Your task to perform on an android device: toggle sleep mode Image 0: 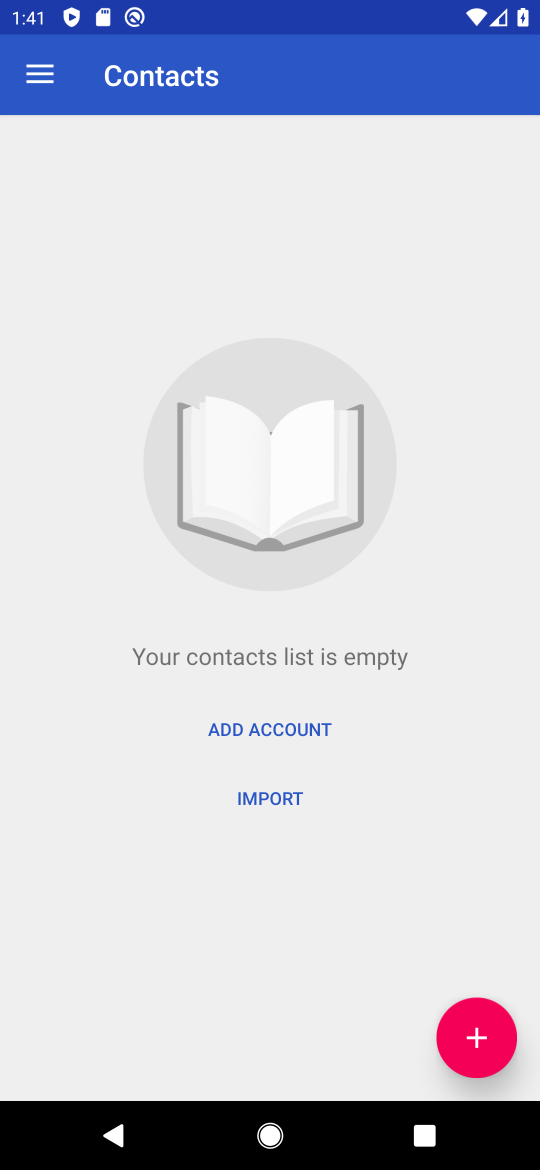
Step 0: task complete